Your task to perform on an android device: turn on data saver in the chrome app Image 0: 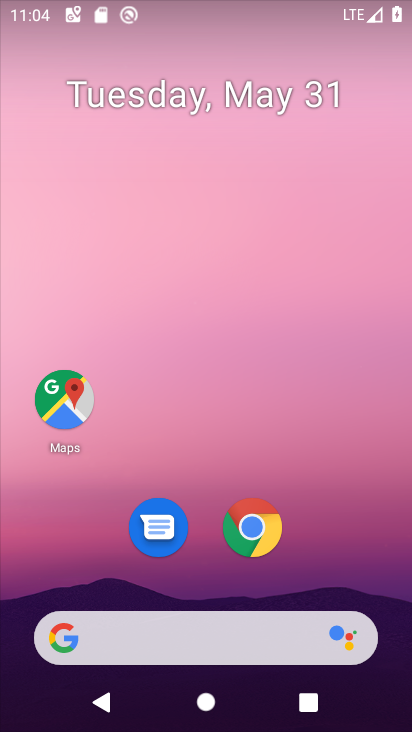
Step 0: click (255, 518)
Your task to perform on an android device: turn on data saver in the chrome app Image 1: 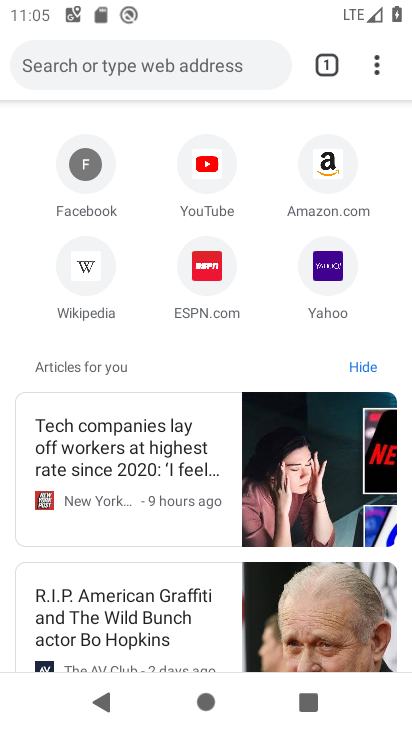
Step 1: click (377, 67)
Your task to perform on an android device: turn on data saver in the chrome app Image 2: 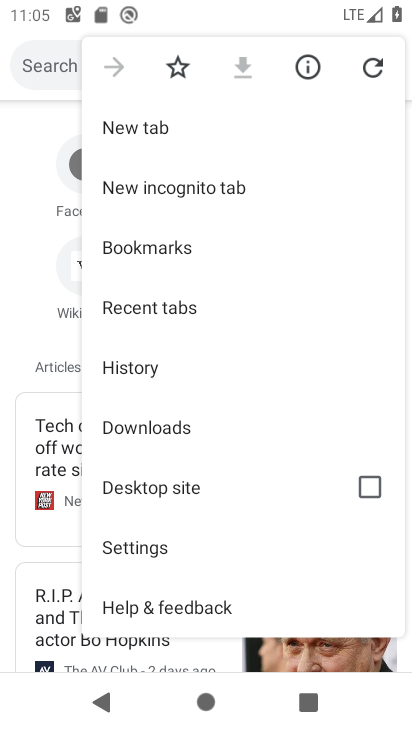
Step 2: click (154, 549)
Your task to perform on an android device: turn on data saver in the chrome app Image 3: 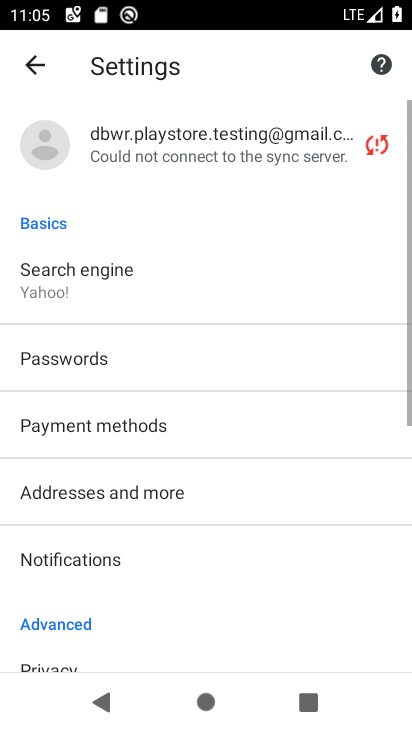
Step 3: drag from (173, 594) to (174, 227)
Your task to perform on an android device: turn on data saver in the chrome app Image 4: 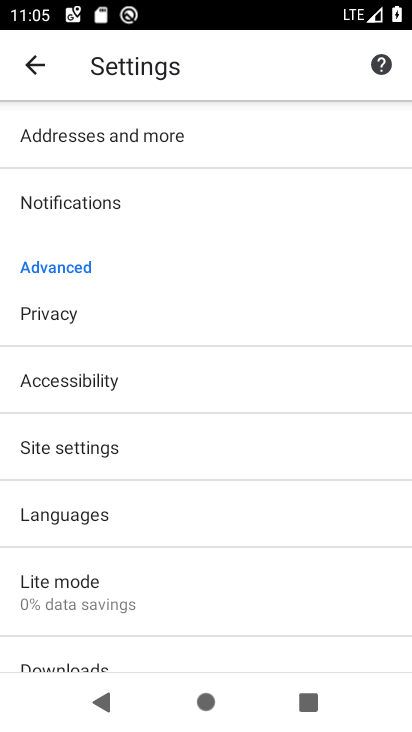
Step 4: click (85, 583)
Your task to perform on an android device: turn on data saver in the chrome app Image 5: 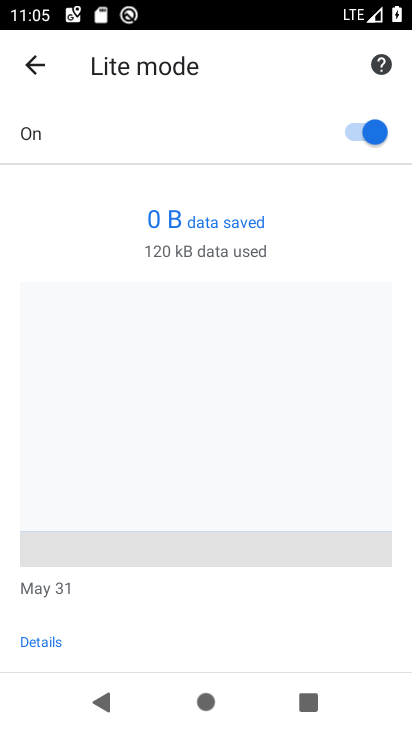
Step 5: task complete